Your task to perform on an android device: clear all cookies in the chrome app Image 0: 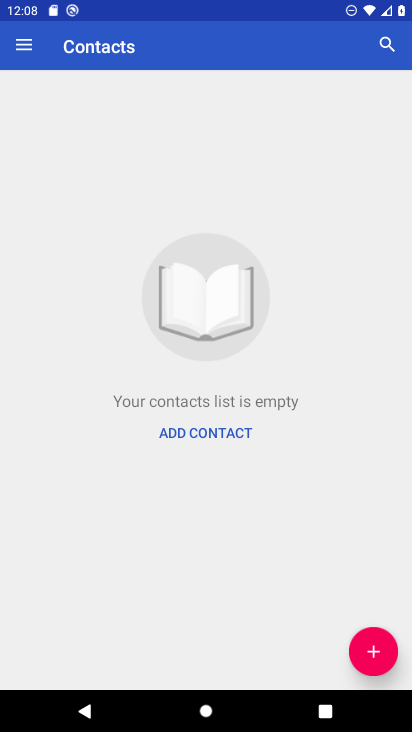
Step 0: press home button
Your task to perform on an android device: clear all cookies in the chrome app Image 1: 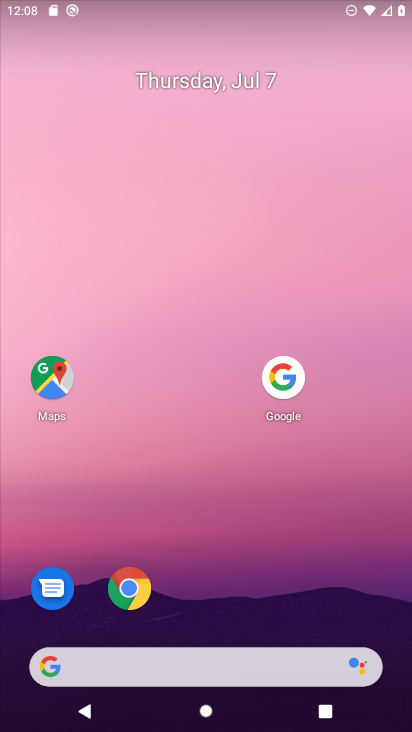
Step 1: click (131, 589)
Your task to perform on an android device: clear all cookies in the chrome app Image 2: 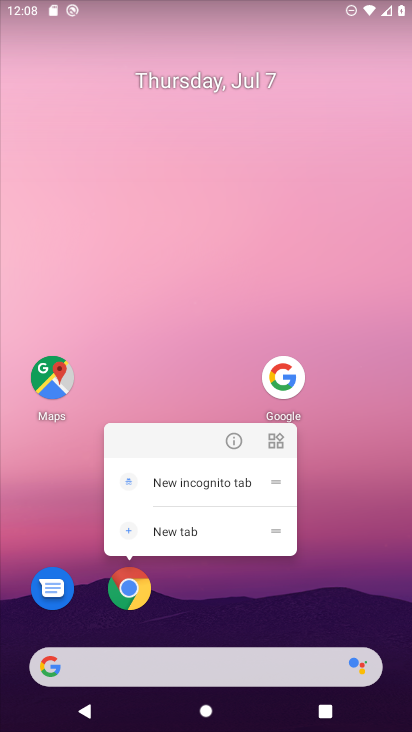
Step 2: click (131, 589)
Your task to perform on an android device: clear all cookies in the chrome app Image 3: 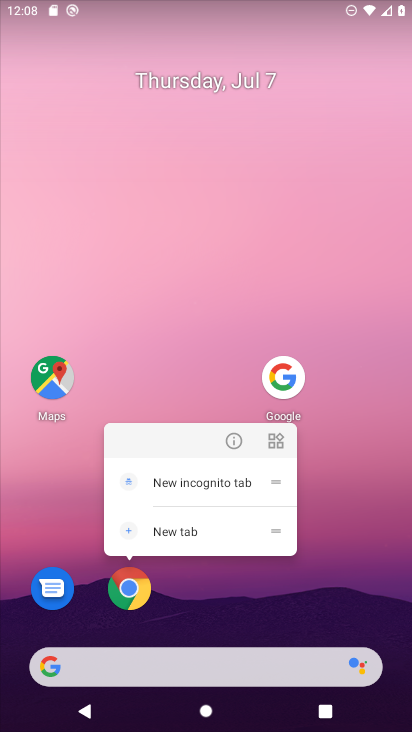
Step 3: click (131, 589)
Your task to perform on an android device: clear all cookies in the chrome app Image 4: 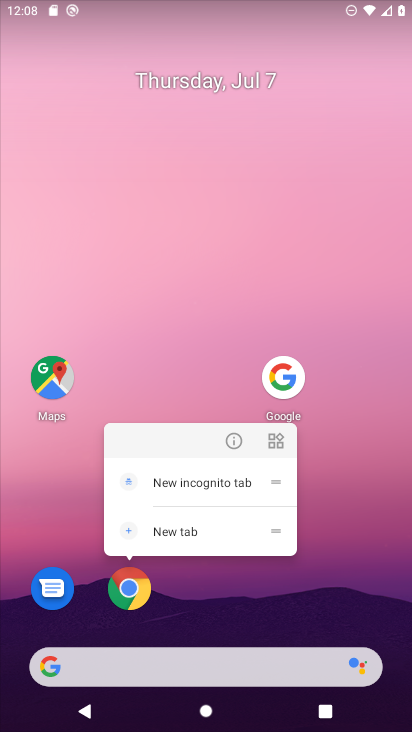
Step 4: click (131, 588)
Your task to perform on an android device: clear all cookies in the chrome app Image 5: 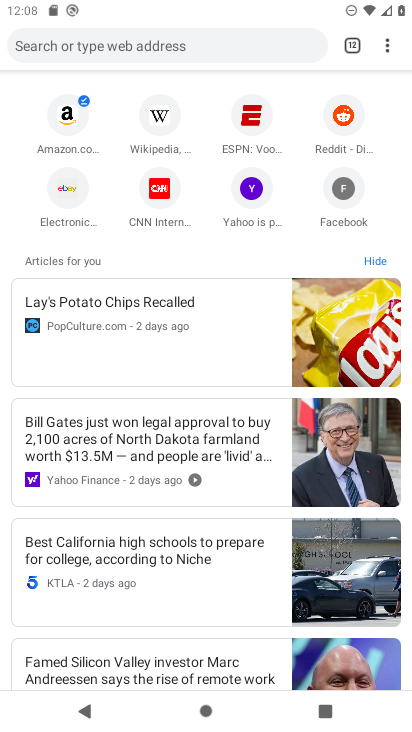
Step 5: click (389, 51)
Your task to perform on an android device: clear all cookies in the chrome app Image 6: 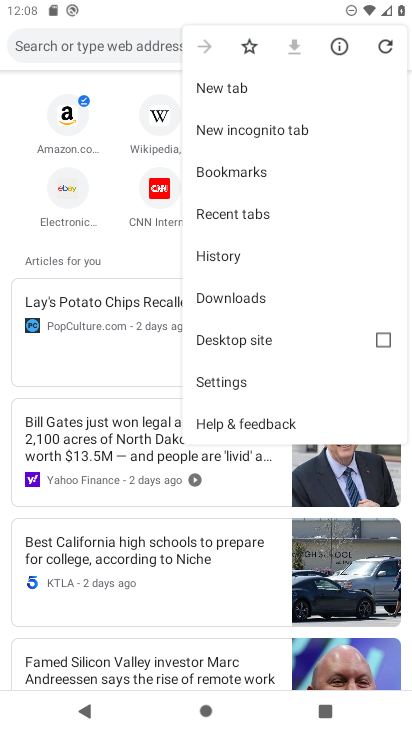
Step 6: click (218, 376)
Your task to perform on an android device: clear all cookies in the chrome app Image 7: 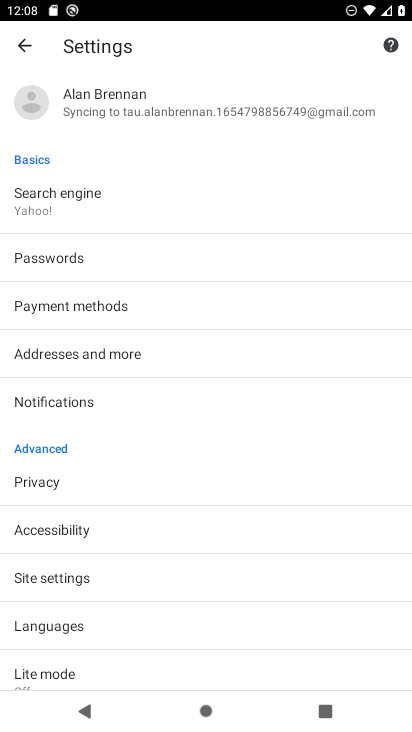
Step 7: click (19, 477)
Your task to perform on an android device: clear all cookies in the chrome app Image 8: 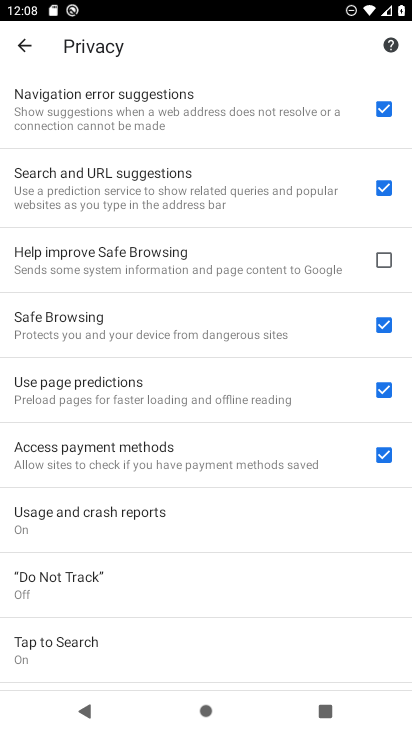
Step 8: drag from (253, 402) to (371, 120)
Your task to perform on an android device: clear all cookies in the chrome app Image 9: 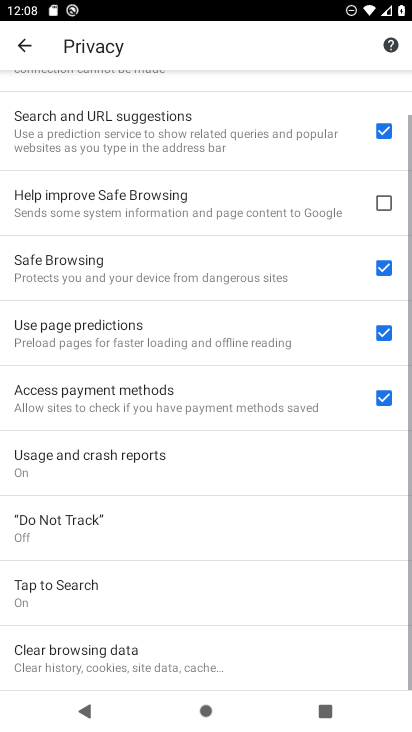
Step 9: drag from (235, 633) to (329, 106)
Your task to perform on an android device: clear all cookies in the chrome app Image 10: 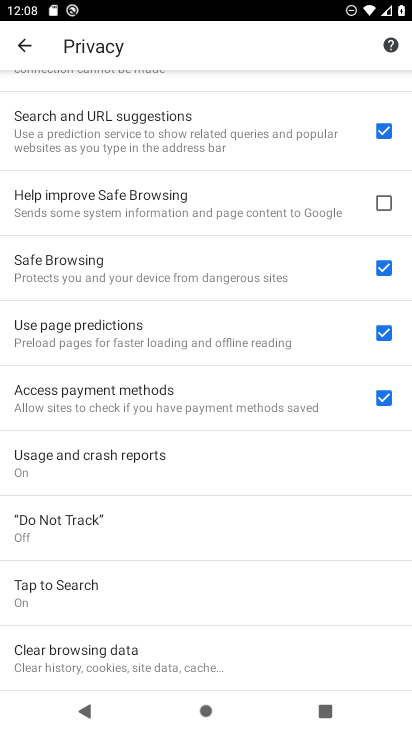
Step 10: click (179, 668)
Your task to perform on an android device: clear all cookies in the chrome app Image 11: 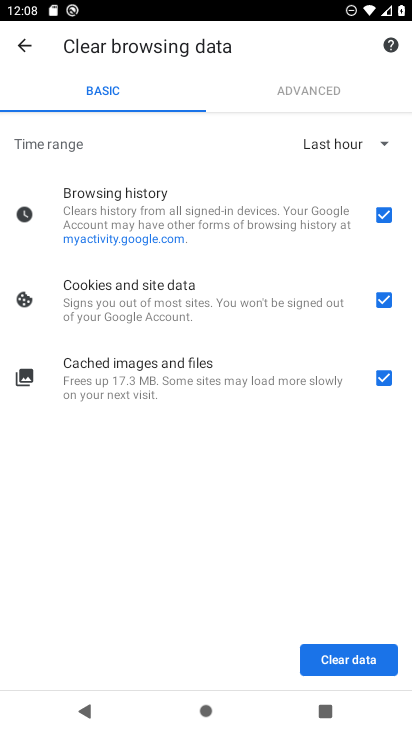
Step 11: click (362, 662)
Your task to perform on an android device: clear all cookies in the chrome app Image 12: 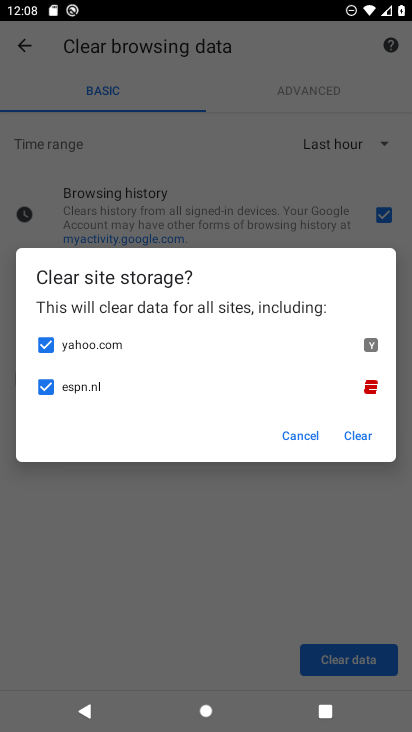
Step 12: click (355, 430)
Your task to perform on an android device: clear all cookies in the chrome app Image 13: 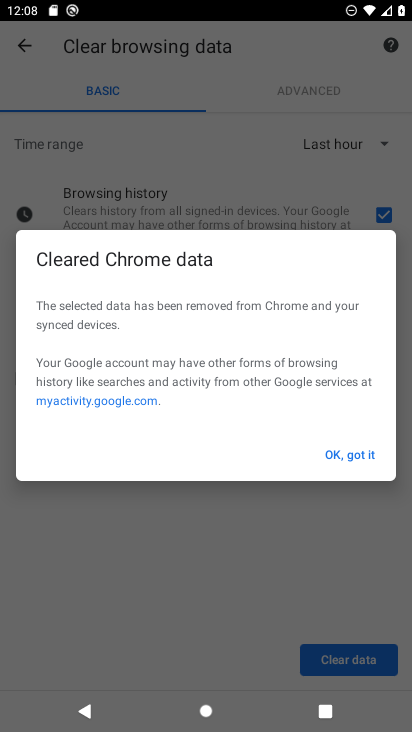
Step 13: click (370, 453)
Your task to perform on an android device: clear all cookies in the chrome app Image 14: 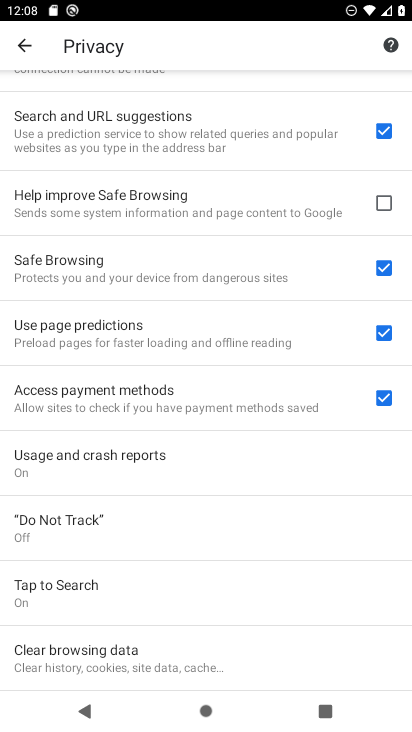
Step 14: task complete